Your task to perform on an android device: Open network settings Image 0: 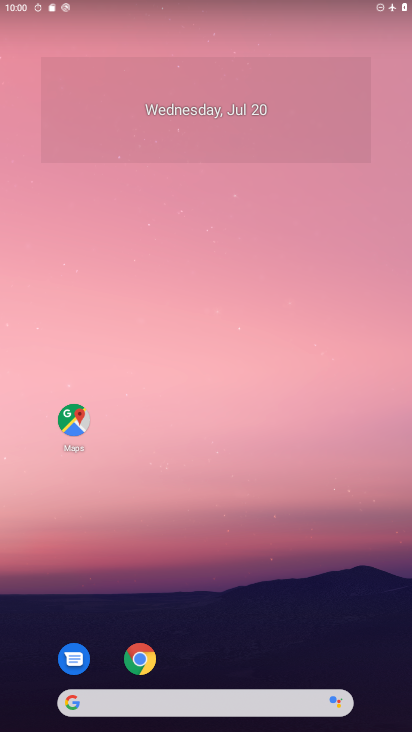
Step 0: drag from (259, 615) to (172, 105)
Your task to perform on an android device: Open network settings Image 1: 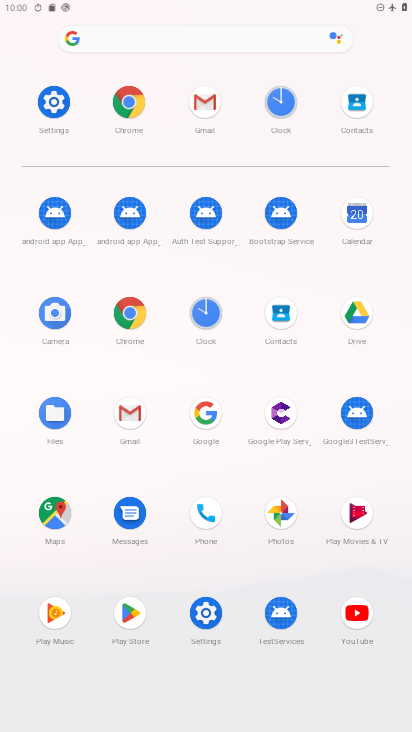
Step 1: click (59, 98)
Your task to perform on an android device: Open network settings Image 2: 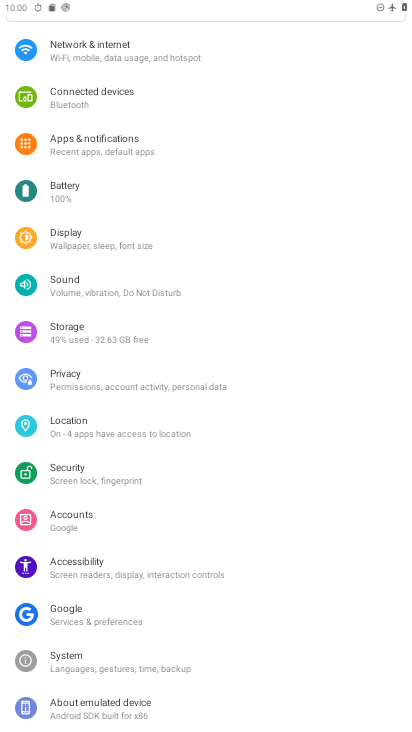
Step 2: click (143, 41)
Your task to perform on an android device: Open network settings Image 3: 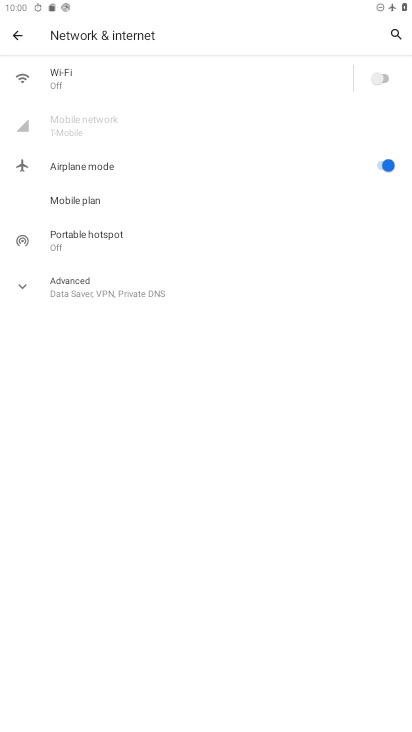
Step 3: task complete